Your task to perform on an android device: install app "YouTube Kids" Image 0: 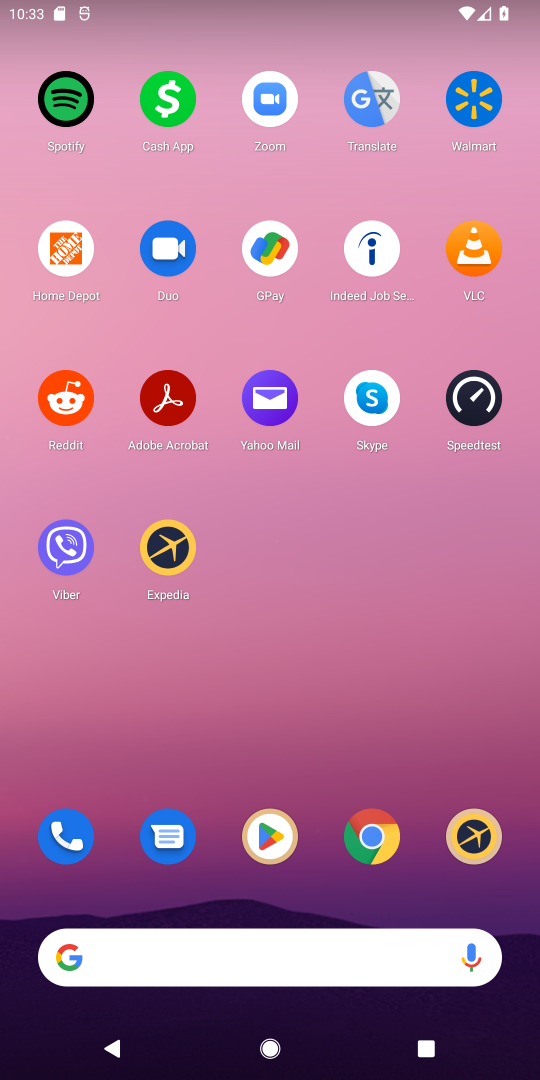
Step 0: click (268, 844)
Your task to perform on an android device: install app "YouTube Kids" Image 1: 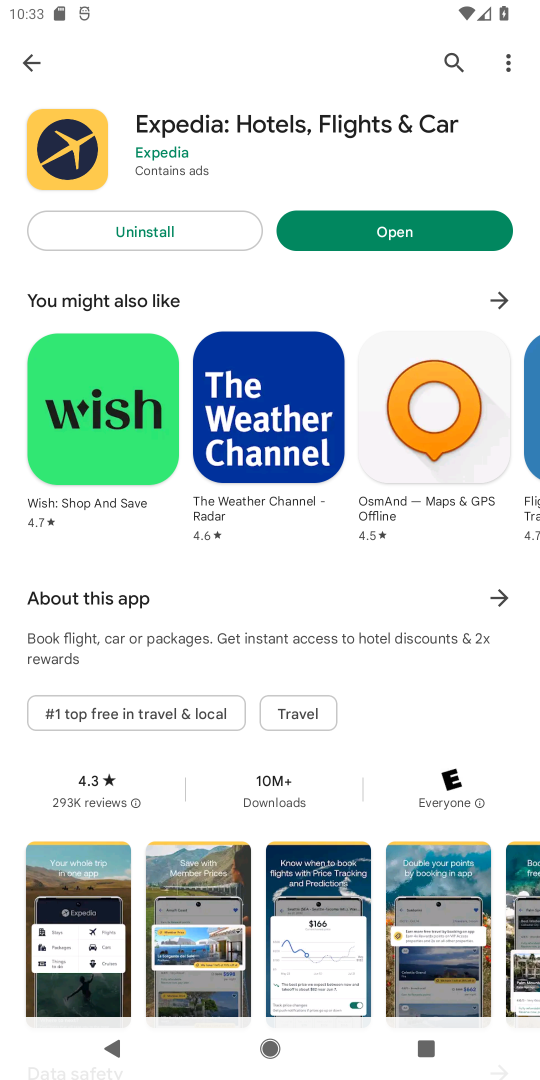
Step 1: click (450, 50)
Your task to perform on an android device: install app "YouTube Kids" Image 2: 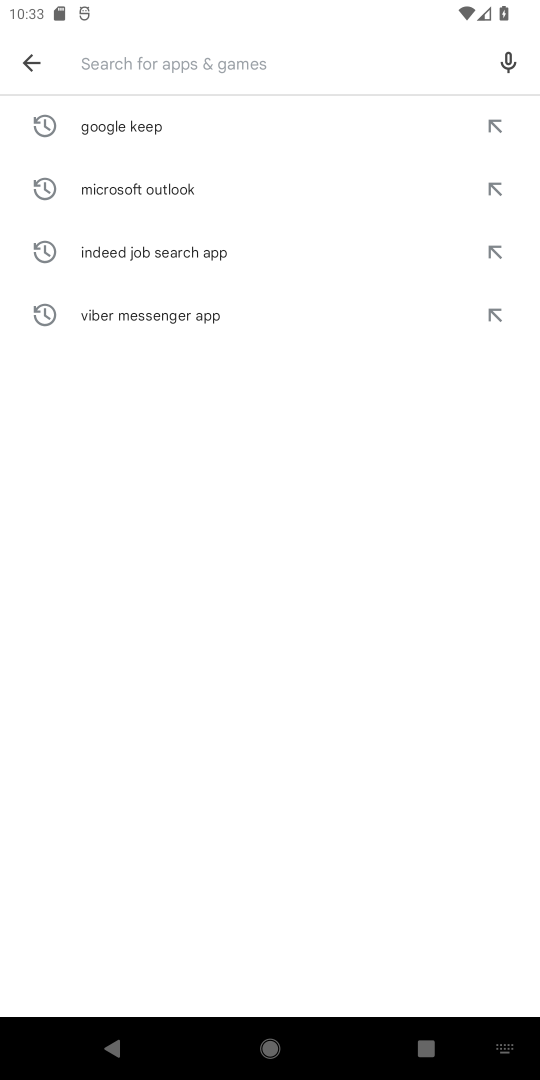
Step 2: type "YouTube Kids"
Your task to perform on an android device: install app "YouTube Kids" Image 3: 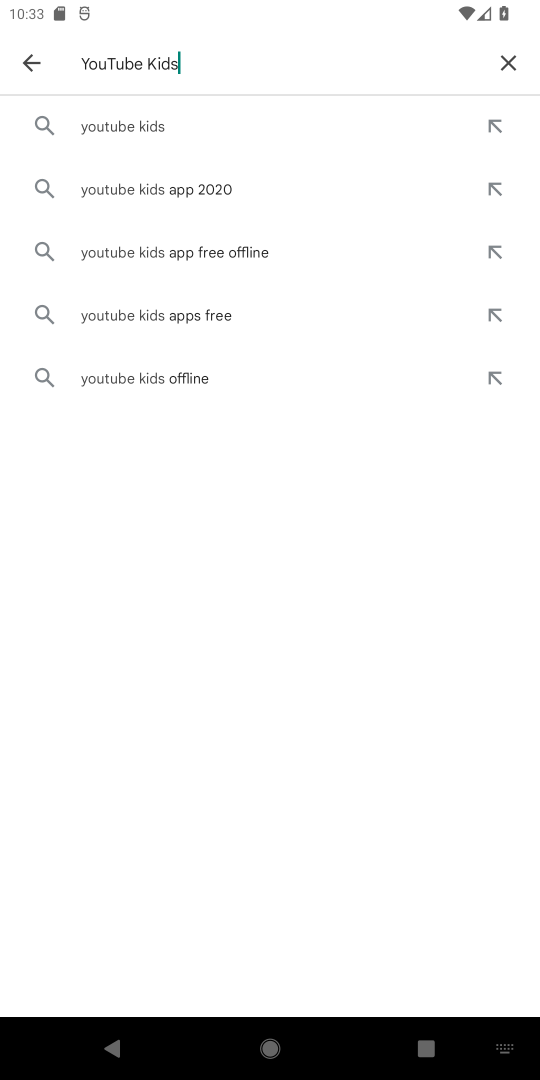
Step 3: click (170, 123)
Your task to perform on an android device: install app "YouTube Kids" Image 4: 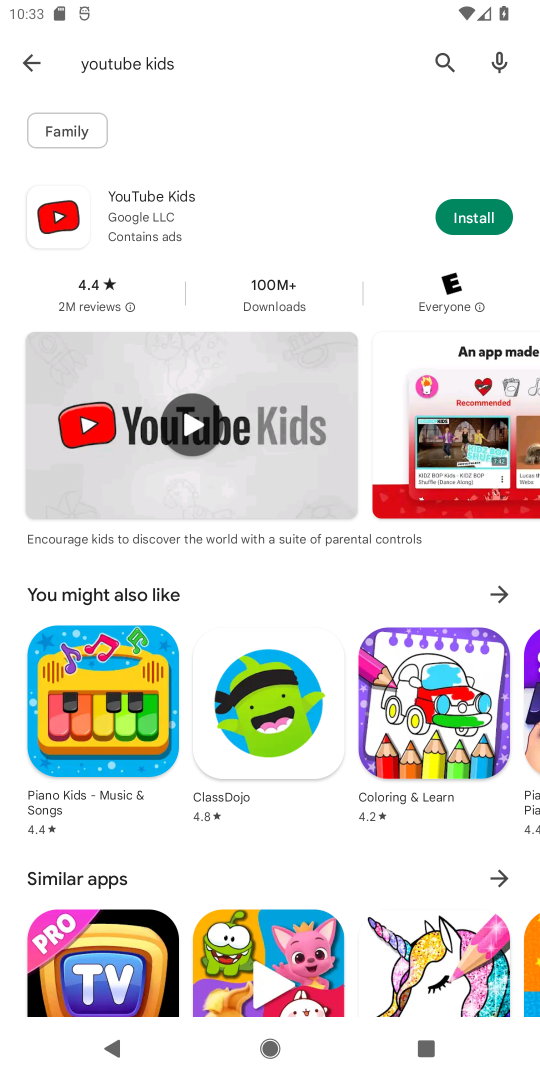
Step 4: click (465, 218)
Your task to perform on an android device: install app "YouTube Kids" Image 5: 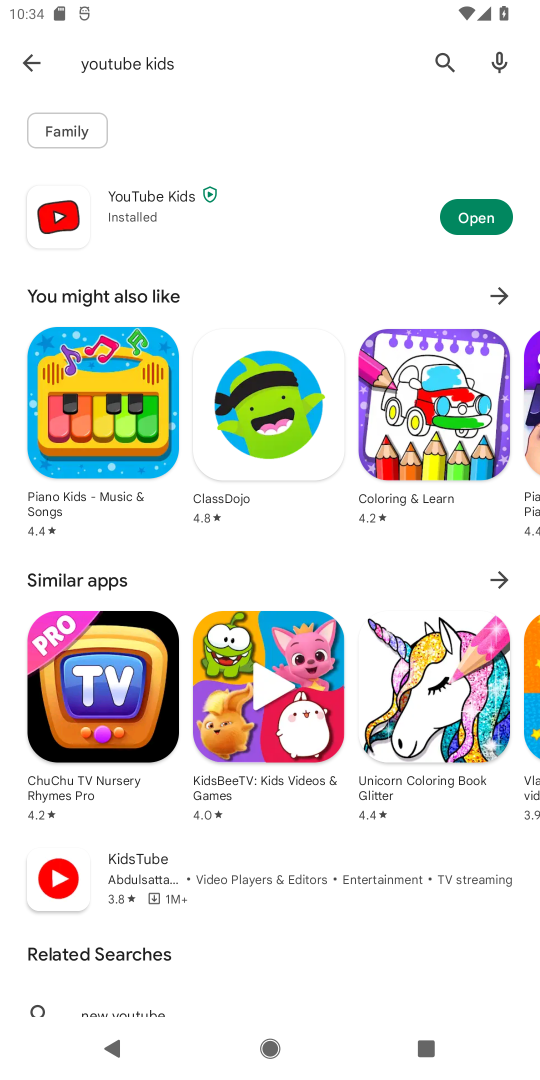
Step 5: task complete